Your task to perform on an android device: turn on data saver in the chrome app Image 0: 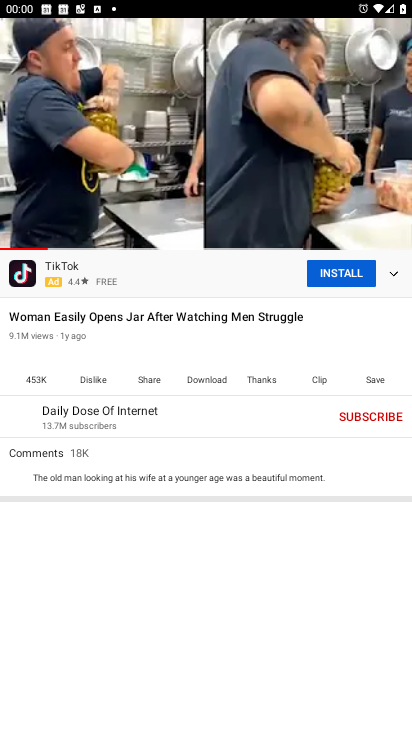
Step 0: drag from (313, 695) to (242, 102)
Your task to perform on an android device: turn on data saver in the chrome app Image 1: 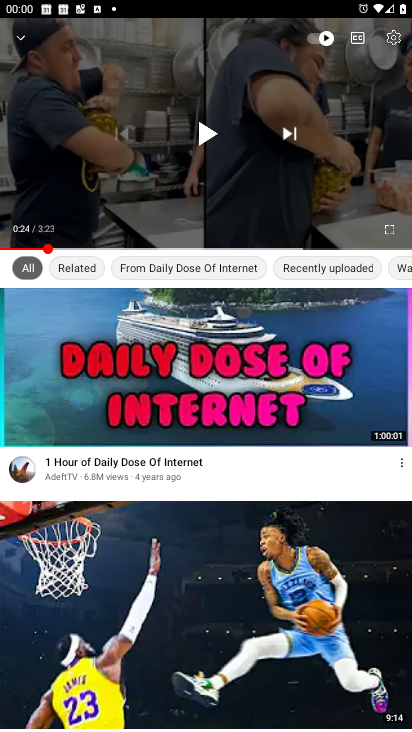
Step 1: press home button
Your task to perform on an android device: turn on data saver in the chrome app Image 2: 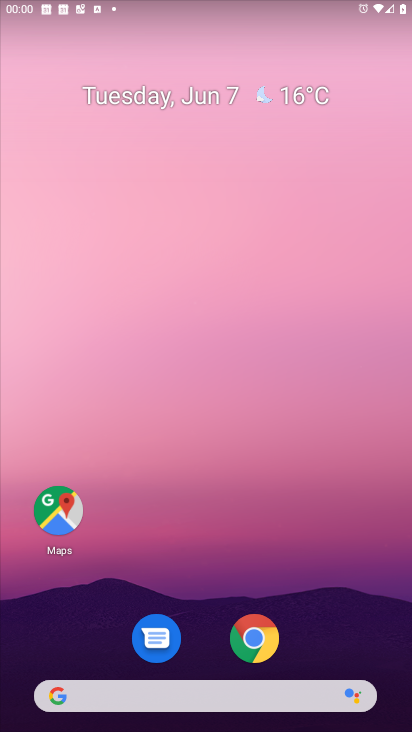
Step 2: drag from (262, 685) to (193, 77)
Your task to perform on an android device: turn on data saver in the chrome app Image 3: 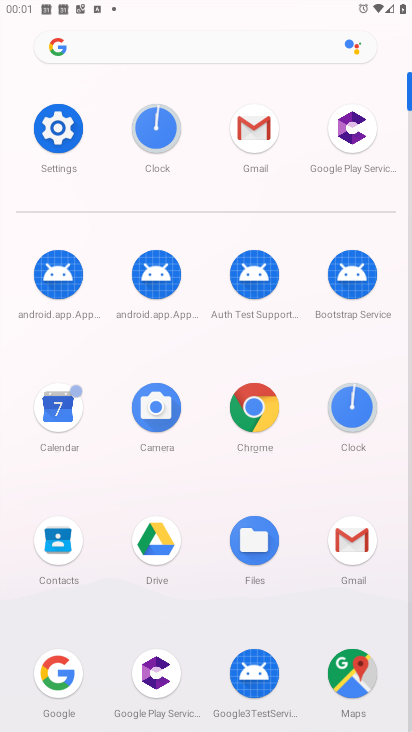
Step 3: click (254, 427)
Your task to perform on an android device: turn on data saver in the chrome app Image 4: 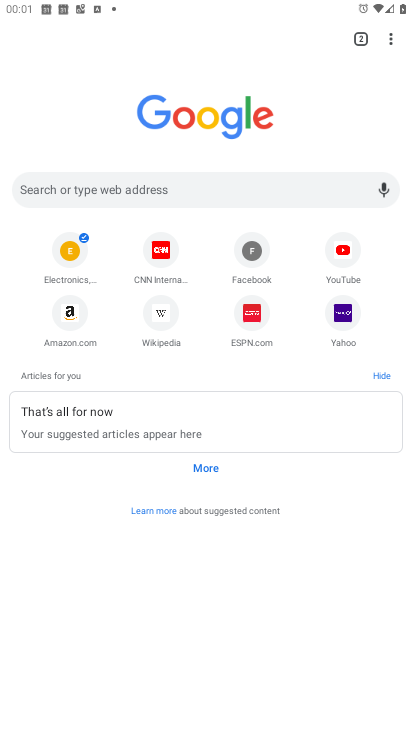
Step 4: click (386, 45)
Your task to perform on an android device: turn on data saver in the chrome app Image 5: 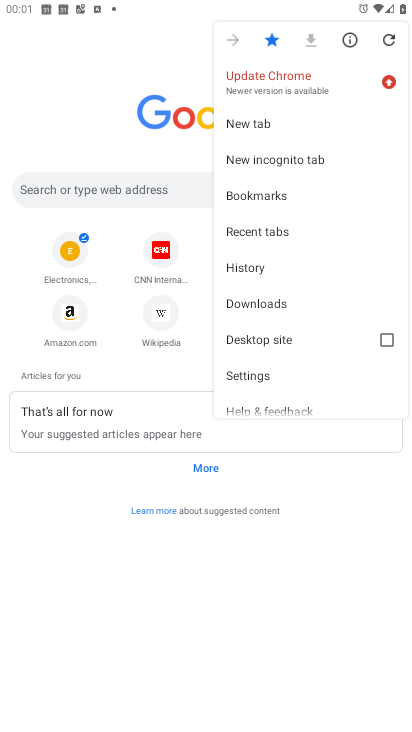
Step 5: click (253, 373)
Your task to perform on an android device: turn on data saver in the chrome app Image 6: 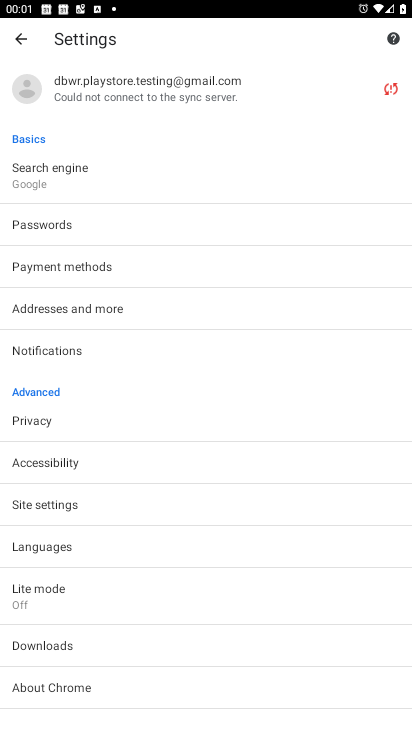
Step 6: click (65, 595)
Your task to perform on an android device: turn on data saver in the chrome app Image 7: 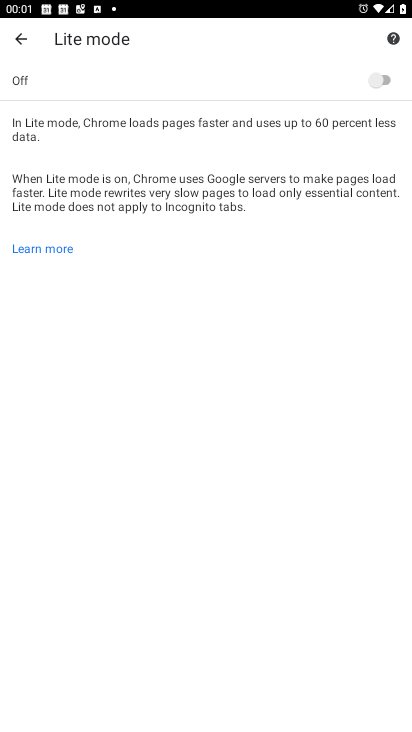
Step 7: click (374, 93)
Your task to perform on an android device: turn on data saver in the chrome app Image 8: 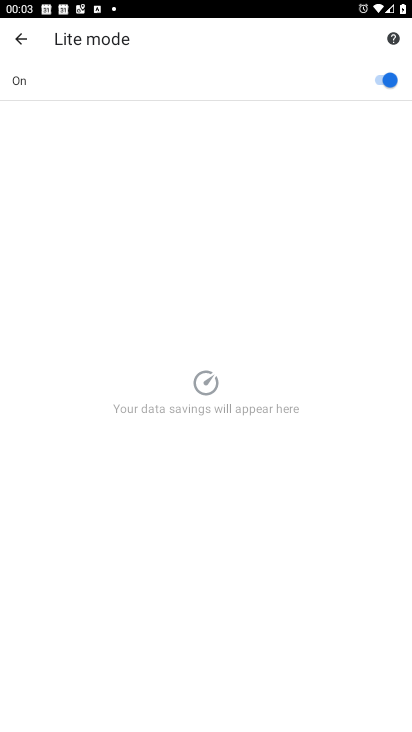
Step 8: task complete